Your task to perform on an android device: Open calendar and show me the third week of next month Image 0: 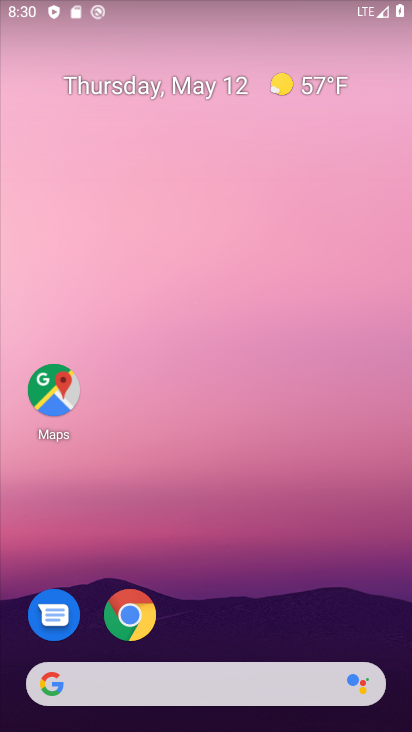
Step 0: drag from (200, 505) to (4, 210)
Your task to perform on an android device: Open calendar and show me the third week of next month Image 1: 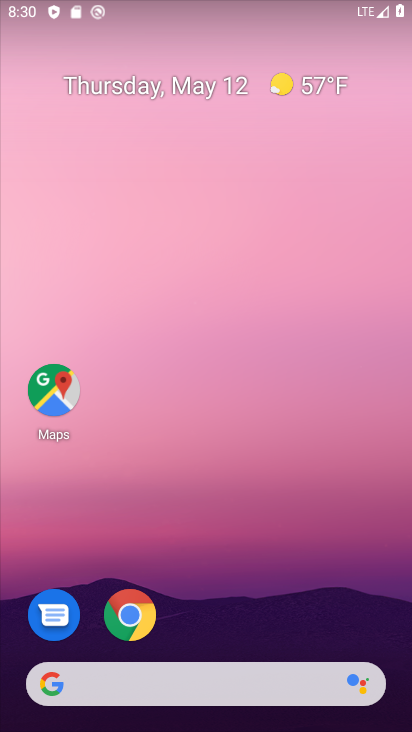
Step 1: drag from (321, 608) to (288, 8)
Your task to perform on an android device: Open calendar and show me the third week of next month Image 2: 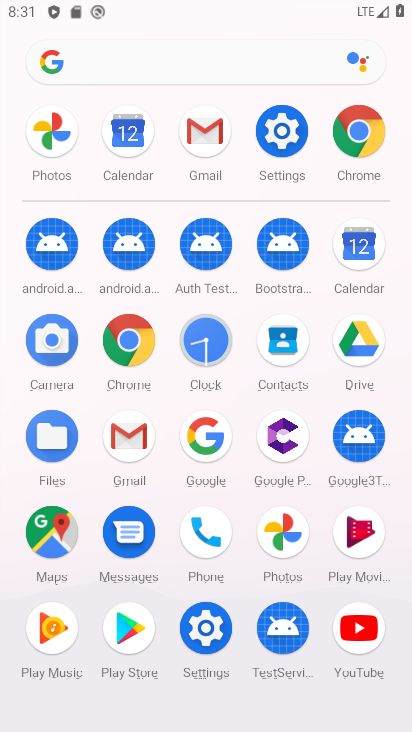
Step 2: drag from (12, 476) to (8, 262)
Your task to perform on an android device: Open calendar and show me the third week of next month Image 3: 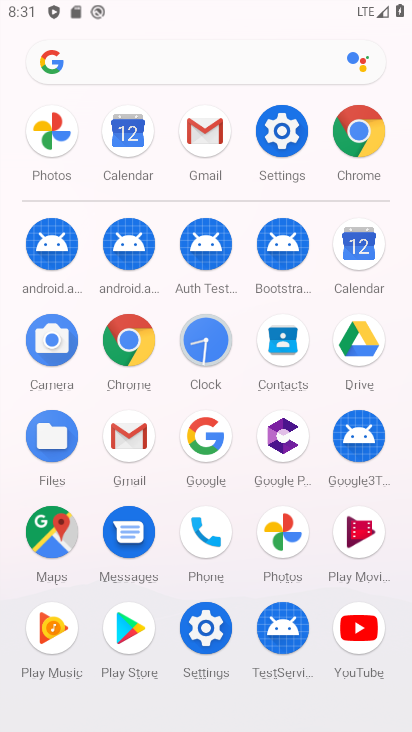
Step 3: click (360, 240)
Your task to perform on an android device: Open calendar and show me the third week of next month Image 4: 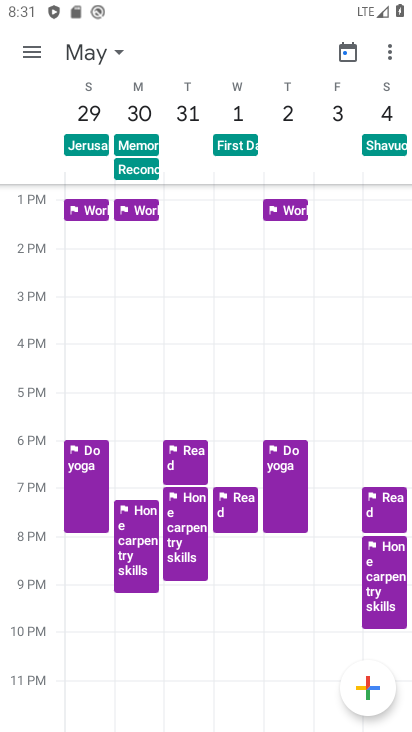
Step 4: click (100, 56)
Your task to perform on an android device: Open calendar and show me the third week of next month Image 5: 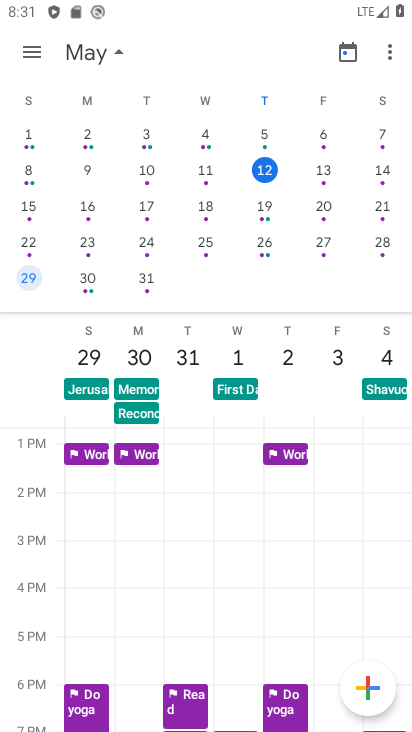
Step 5: drag from (374, 201) to (12, 181)
Your task to perform on an android device: Open calendar and show me the third week of next month Image 6: 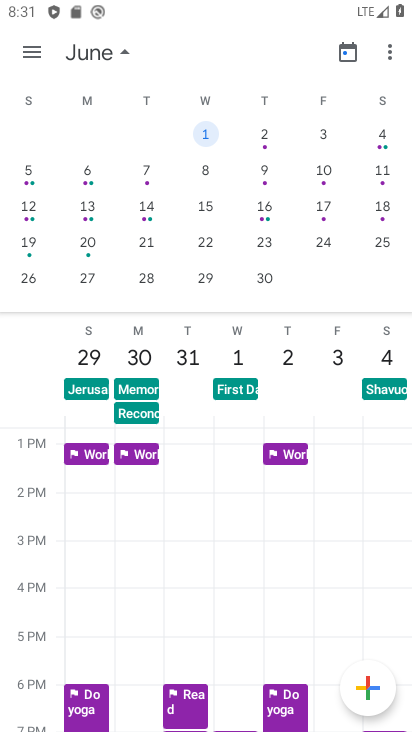
Step 6: click (30, 203)
Your task to perform on an android device: Open calendar and show me the third week of next month Image 7: 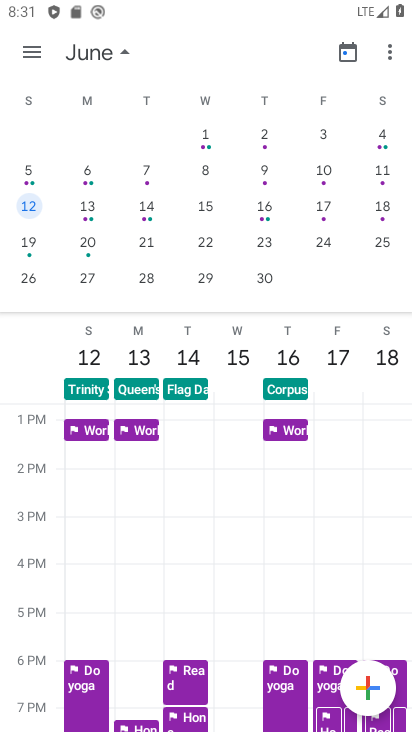
Step 7: click (27, 46)
Your task to perform on an android device: Open calendar and show me the third week of next month Image 8: 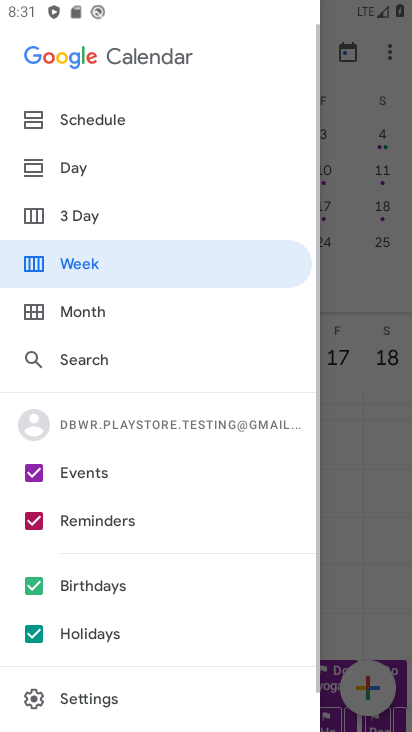
Step 8: click (97, 254)
Your task to perform on an android device: Open calendar and show me the third week of next month Image 9: 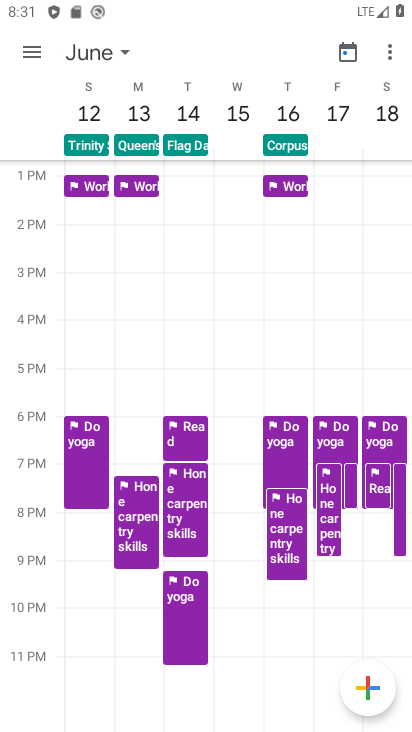
Step 9: task complete